Your task to perform on an android device: Open Google Chrome and open the bookmarks view Image 0: 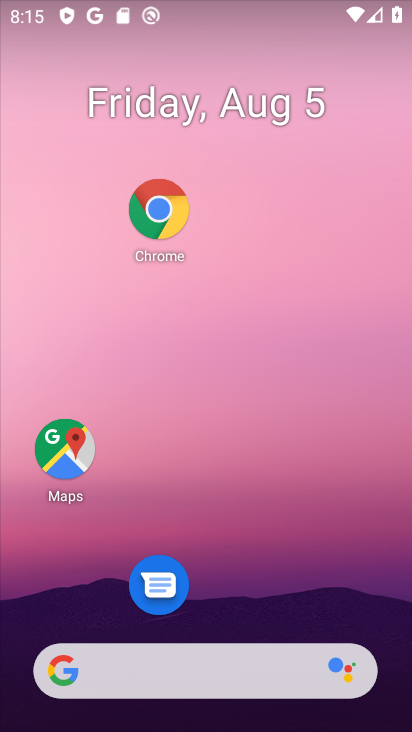
Step 0: click (177, 228)
Your task to perform on an android device: Open Google Chrome and open the bookmarks view Image 1: 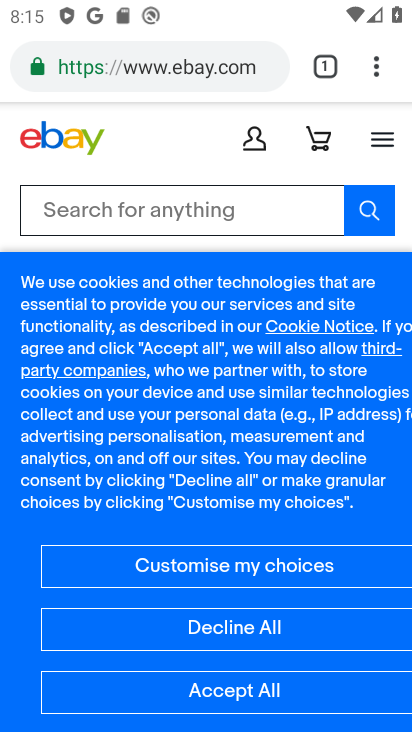
Step 1: click (376, 56)
Your task to perform on an android device: Open Google Chrome and open the bookmarks view Image 2: 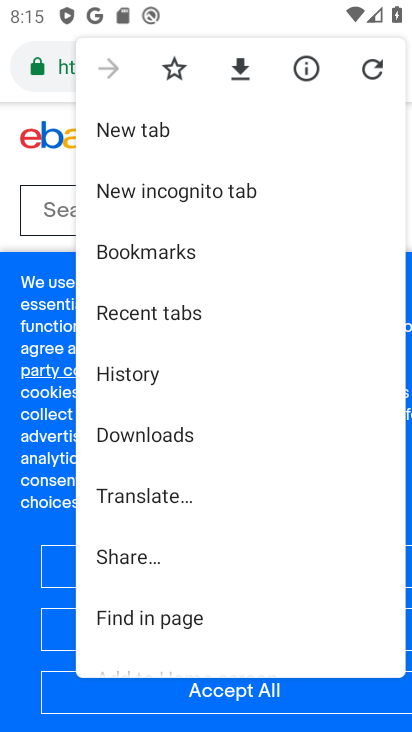
Step 2: click (191, 252)
Your task to perform on an android device: Open Google Chrome and open the bookmarks view Image 3: 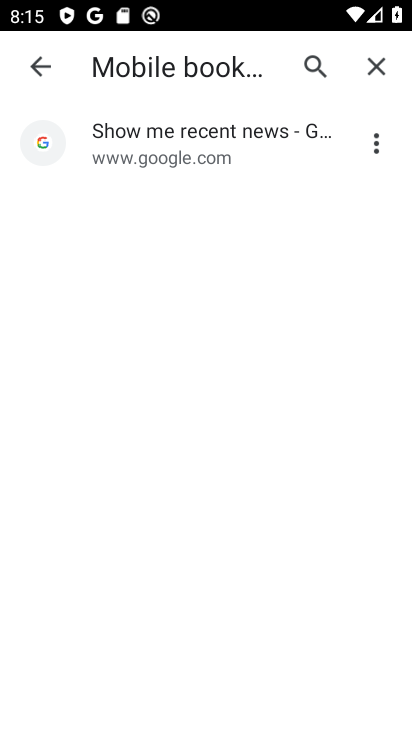
Step 3: task complete